Your task to perform on an android device: Search for seafood restaurants on Google Maps Image 0: 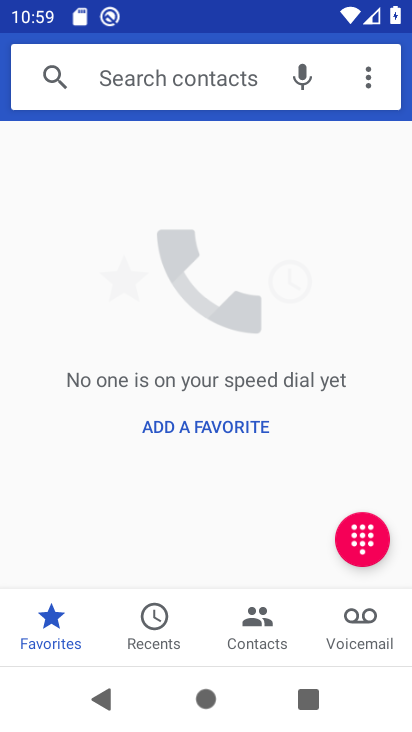
Step 0: drag from (250, 434) to (301, 434)
Your task to perform on an android device: Search for seafood restaurants on Google Maps Image 1: 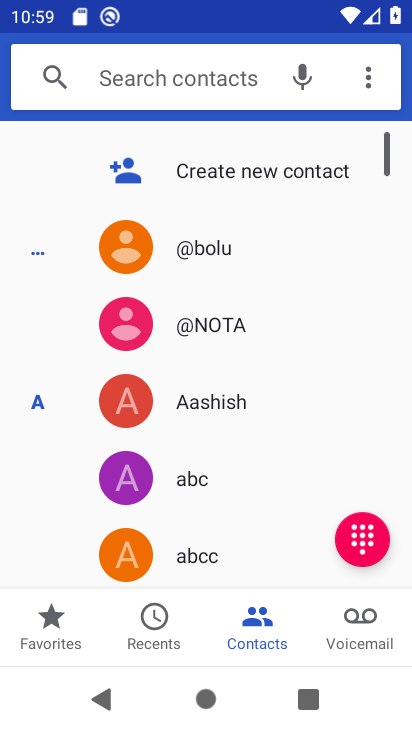
Step 1: press home button
Your task to perform on an android device: Search for seafood restaurants on Google Maps Image 2: 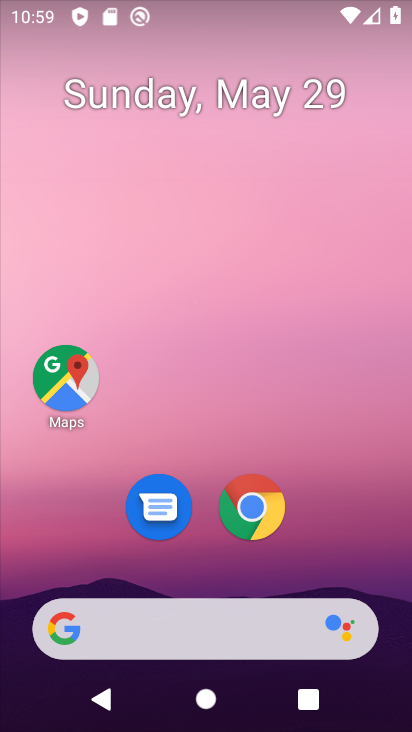
Step 2: drag from (288, 671) to (146, 186)
Your task to perform on an android device: Search for seafood restaurants on Google Maps Image 3: 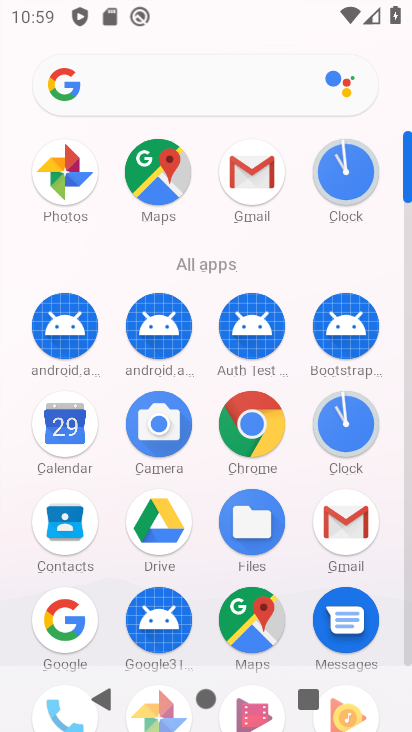
Step 3: click (69, 84)
Your task to perform on an android device: Search for seafood restaurants on Google Maps Image 4: 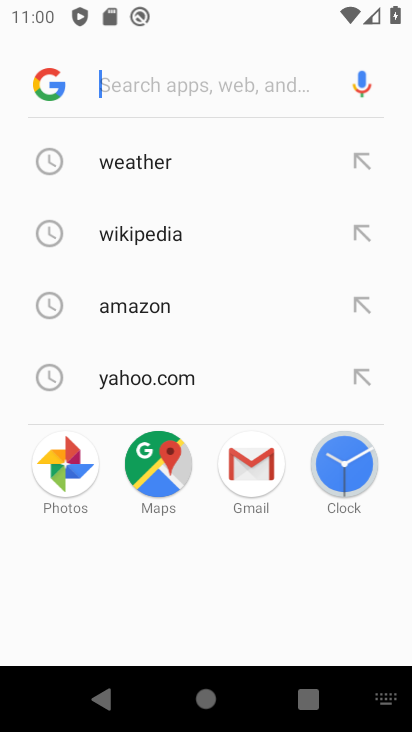
Step 4: click (184, 453)
Your task to perform on an android device: Search for seafood restaurants on Google Maps Image 5: 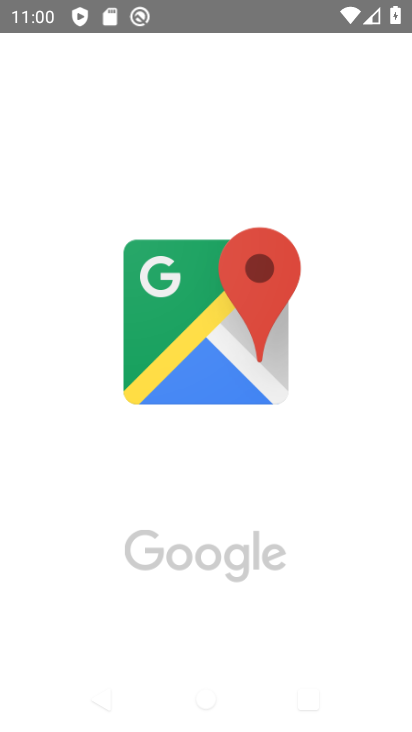
Step 5: click (102, 412)
Your task to perform on an android device: Search for seafood restaurants on Google Maps Image 6: 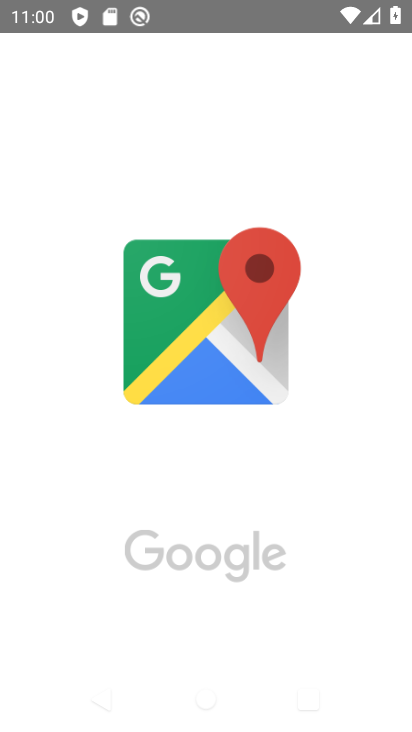
Step 6: click (150, 447)
Your task to perform on an android device: Search for seafood restaurants on Google Maps Image 7: 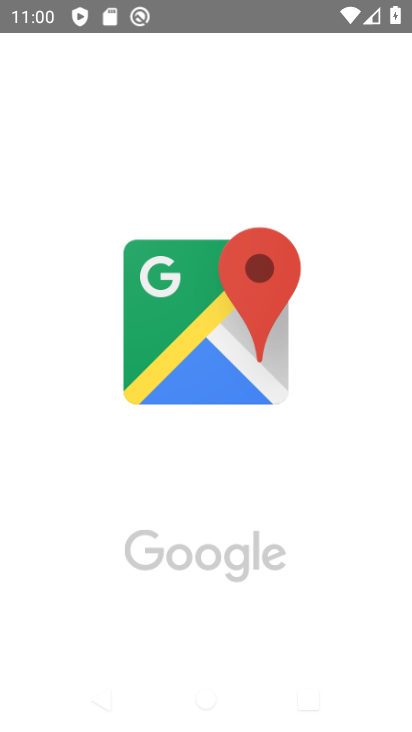
Step 7: task complete